Your task to perform on an android device: change alarm snooze length Image 0: 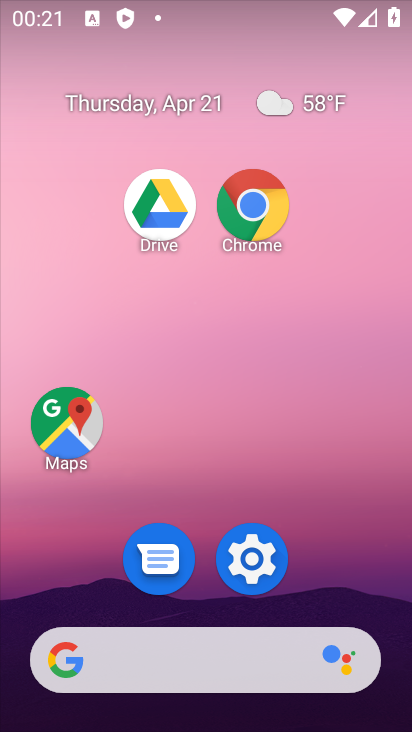
Step 0: drag from (337, 601) to (295, 77)
Your task to perform on an android device: change alarm snooze length Image 1: 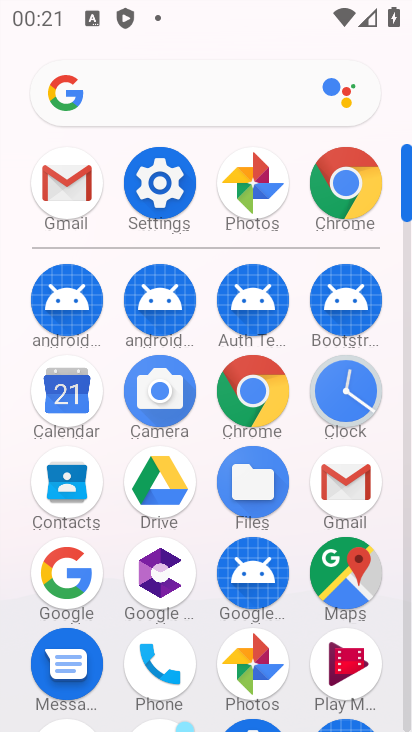
Step 1: click (346, 402)
Your task to perform on an android device: change alarm snooze length Image 2: 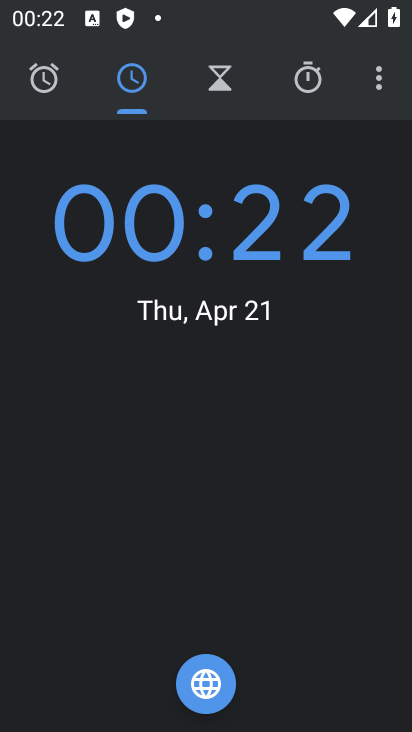
Step 2: click (374, 75)
Your task to perform on an android device: change alarm snooze length Image 3: 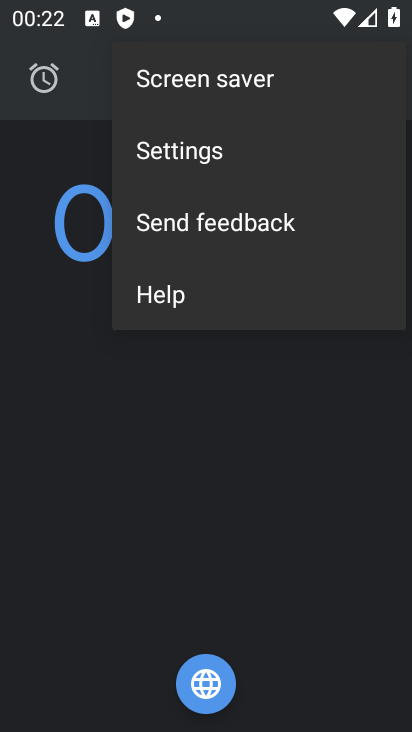
Step 3: click (215, 155)
Your task to perform on an android device: change alarm snooze length Image 4: 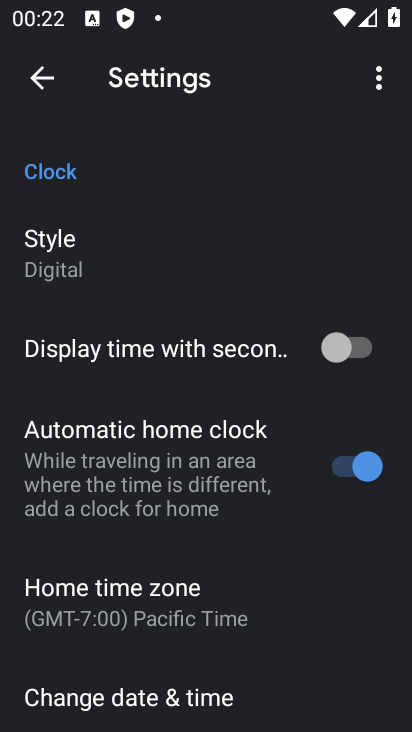
Step 4: drag from (300, 660) to (289, 338)
Your task to perform on an android device: change alarm snooze length Image 5: 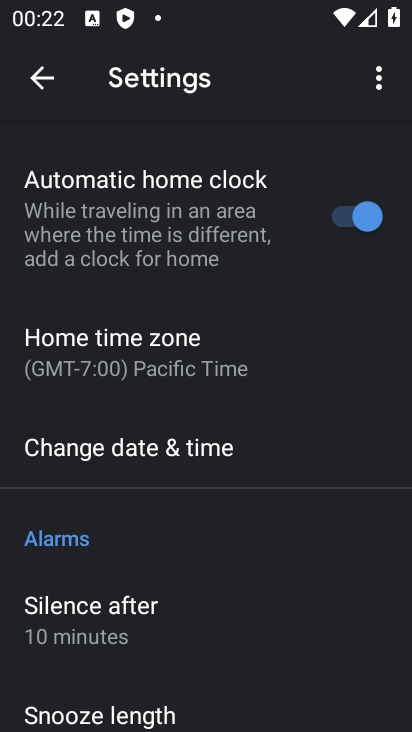
Step 5: drag from (288, 597) to (297, 265)
Your task to perform on an android device: change alarm snooze length Image 6: 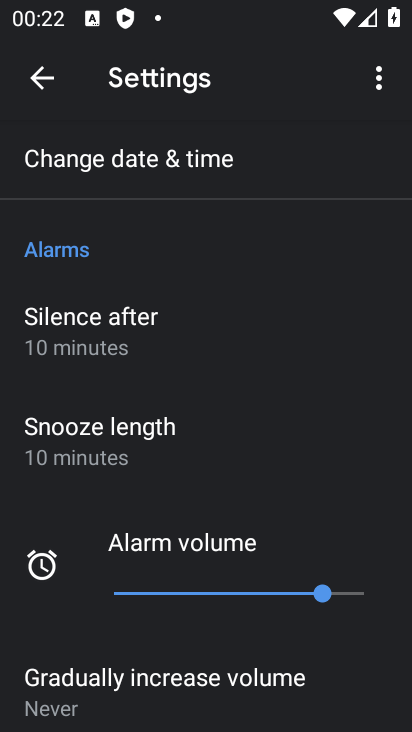
Step 6: click (156, 419)
Your task to perform on an android device: change alarm snooze length Image 7: 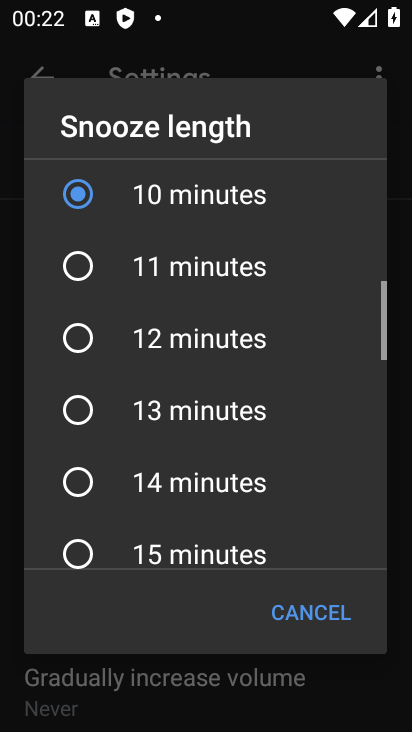
Step 7: click (134, 343)
Your task to perform on an android device: change alarm snooze length Image 8: 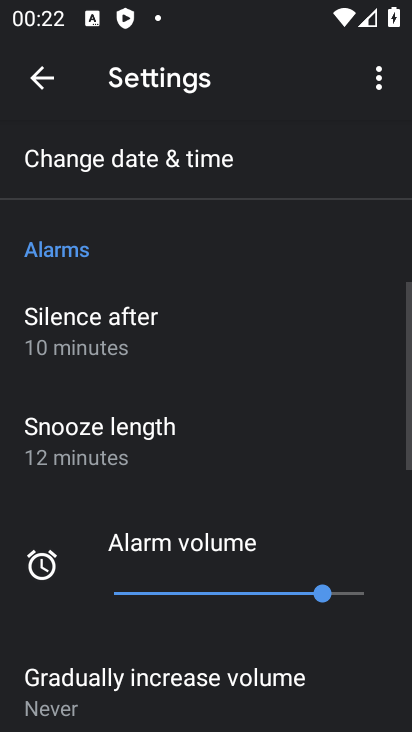
Step 8: task complete